Your task to perform on an android device: Open Google Chrome and click the shortcut for Amazon.com Image 0: 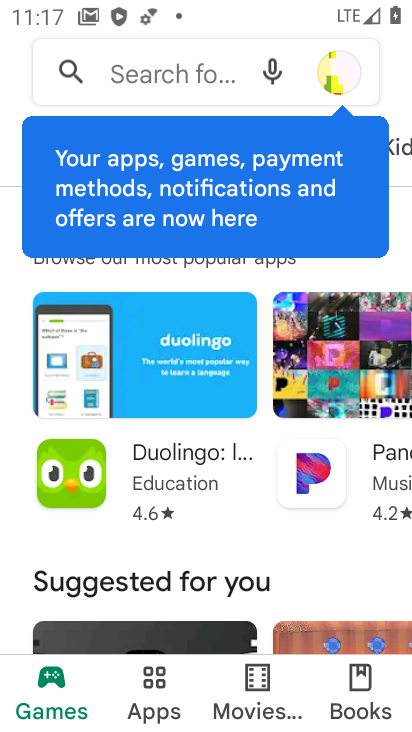
Step 0: press home button
Your task to perform on an android device: Open Google Chrome and click the shortcut for Amazon.com Image 1: 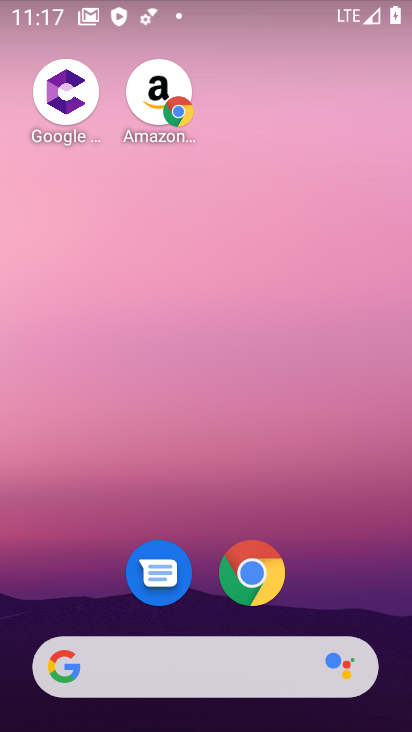
Step 1: click (251, 573)
Your task to perform on an android device: Open Google Chrome and click the shortcut for Amazon.com Image 2: 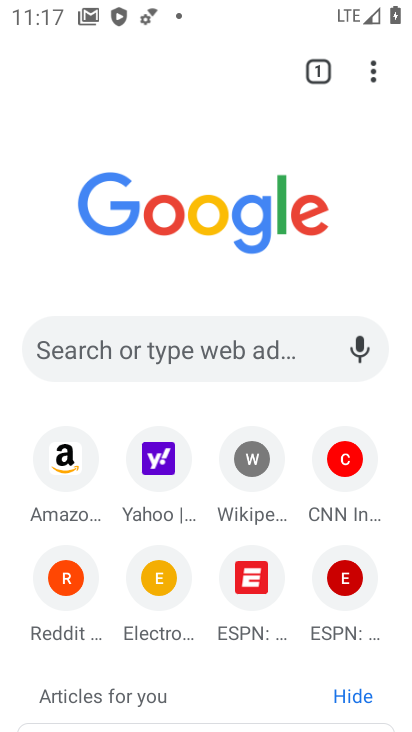
Step 2: click (60, 454)
Your task to perform on an android device: Open Google Chrome and click the shortcut for Amazon.com Image 3: 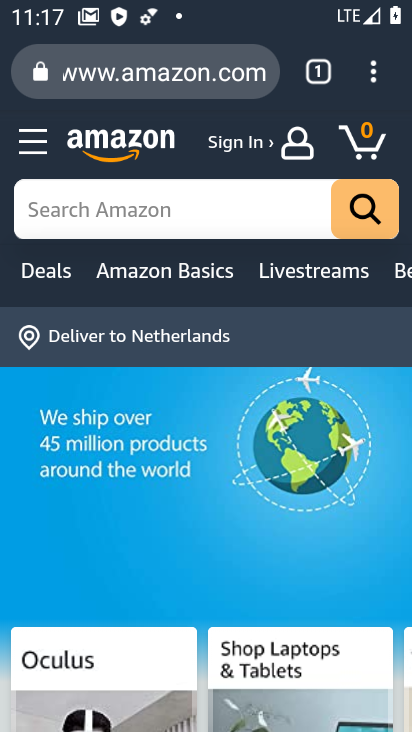
Step 3: click (391, 73)
Your task to perform on an android device: Open Google Chrome and click the shortcut for Amazon.com Image 4: 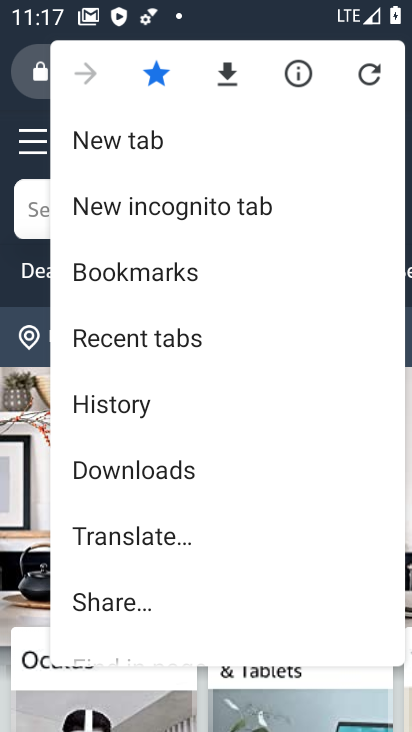
Step 4: drag from (178, 515) to (202, 420)
Your task to perform on an android device: Open Google Chrome and click the shortcut for Amazon.com Image 5: 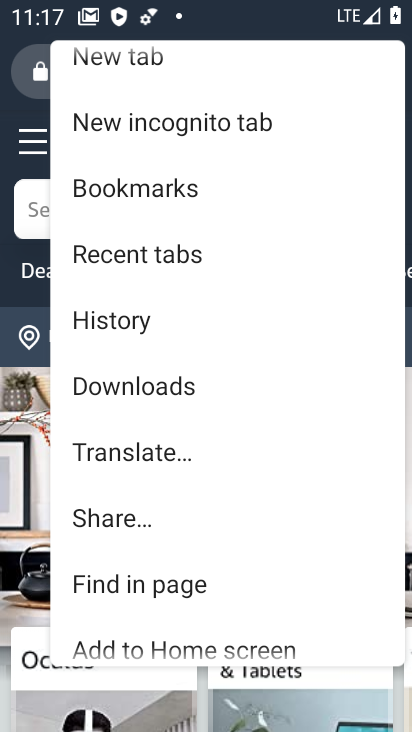
Step 5: drag from (214, 447) to (219, 413)
Your task to perform on an android device: Open Google Chrome and click the shortcut for Amazon.com Image 6: 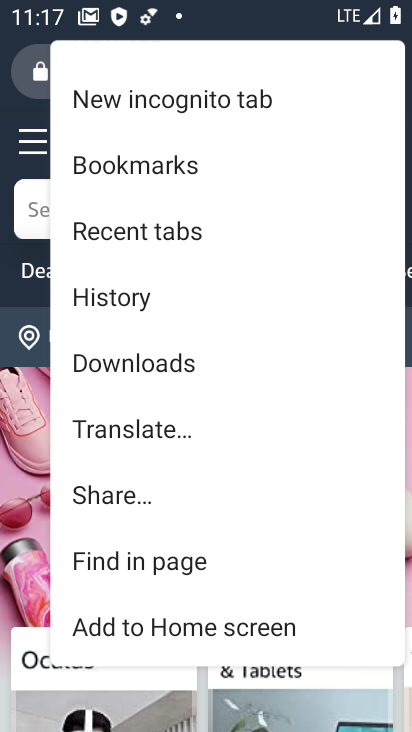
Step 6: click (209, 624)
Your task to perform on an android device: Open Google Chrome and click the shortcut for Amazon.com Image 7: 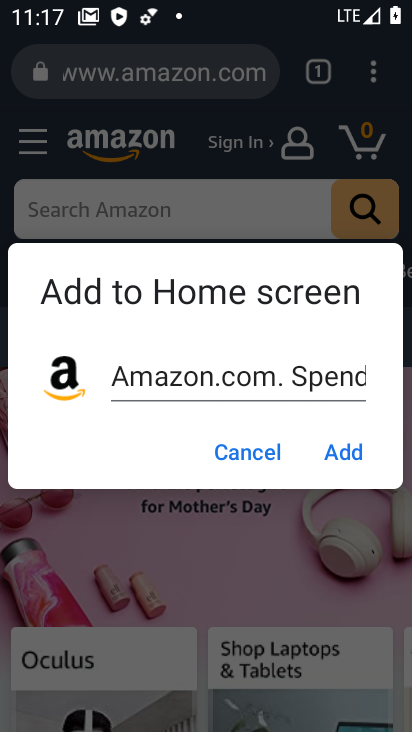
Step 7: click (351, 451)
Your task to perform on an android device: Open Google Chrome and click the shortcut for Amazon.com Image 8: 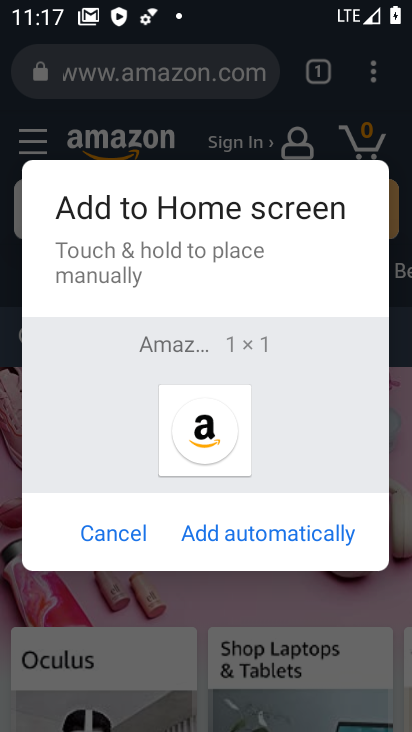
Step 8: click (303, 527)
Your task to perform on an android device: Open Google Chrome and click the shortcut for Amazon.com Image 9: 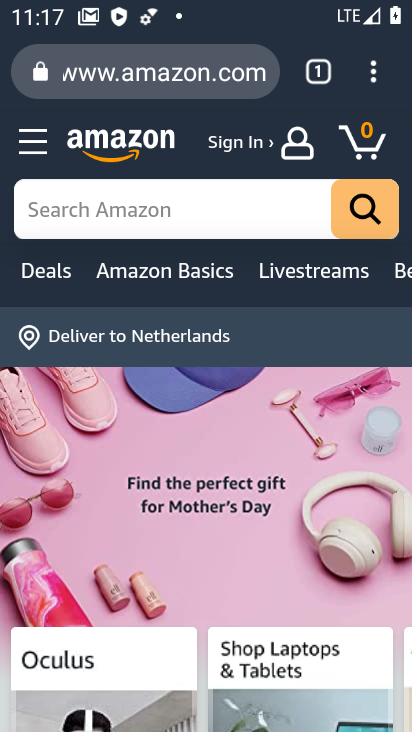
Step 9: task complete